Your task to perform on an android device: turn on sleep mode Image 0: 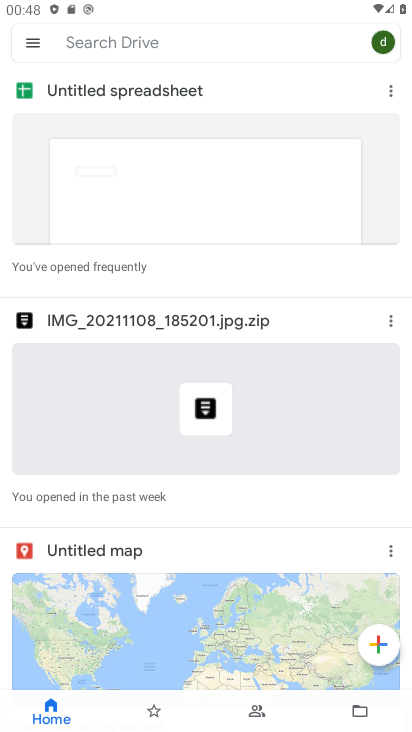
Step 0: press home button
Your task to perform on an android device: turn on sleep mode Image 1: 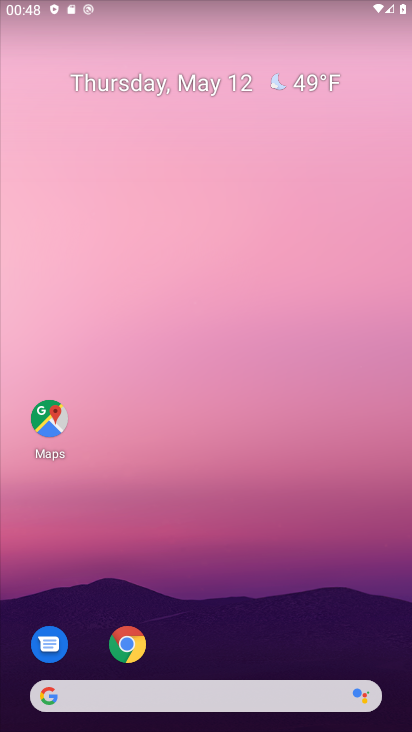
Step 1: drag from (230, 578) to (149, 129)
Your task to perform on an android device: turn on sleep mode Image 2: 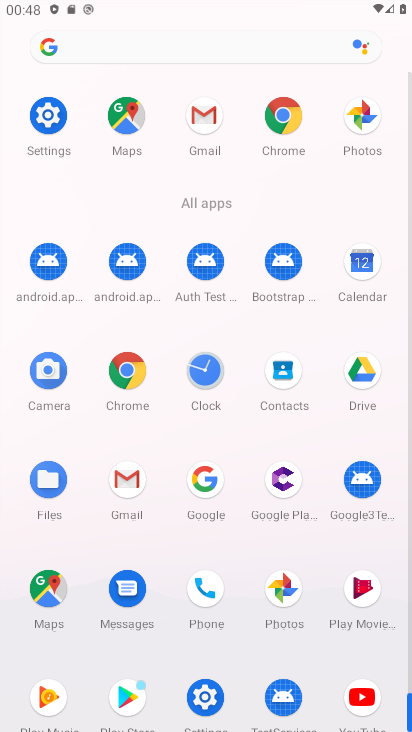
Step 2: click (45, 121)
Your task to perform on an android device: turn on sleep mode Image 3: 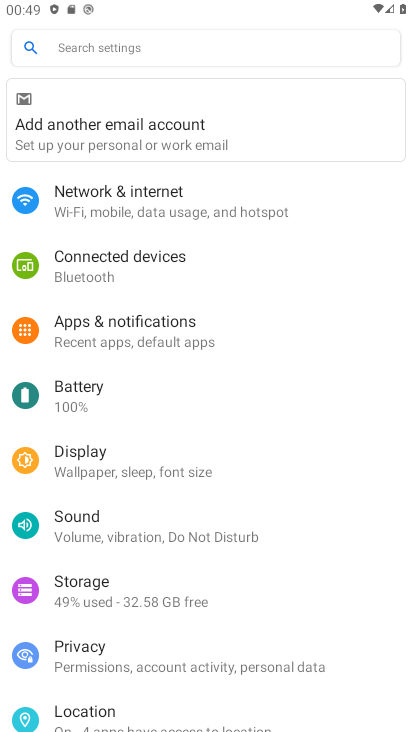
Step 3: click (99, 457)
Your task to perform on an android device: turn on sleep mode Image 4: 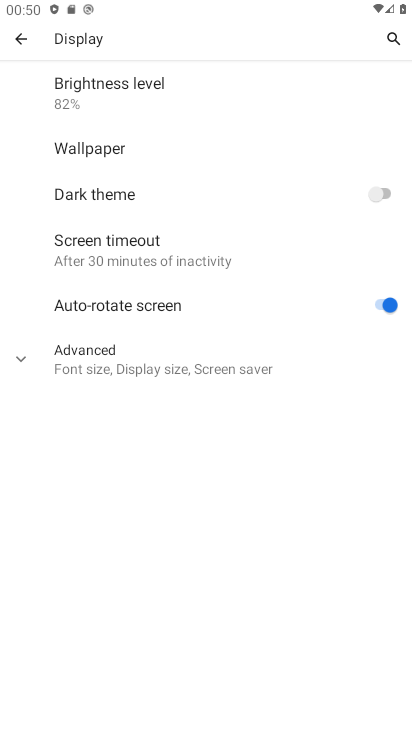
Step 4: click (112, 237)
Your task to perform on an android device: turn on sleep mode Image 5: 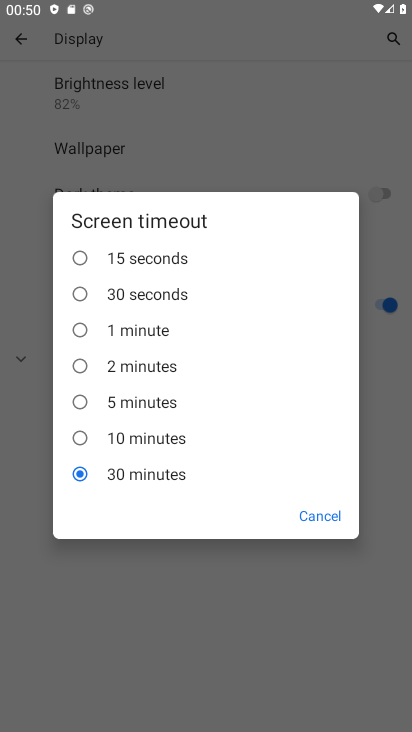
Step 5: task complete